Your task to perform on an android device: search for starred emails in the gmail app Image 0: 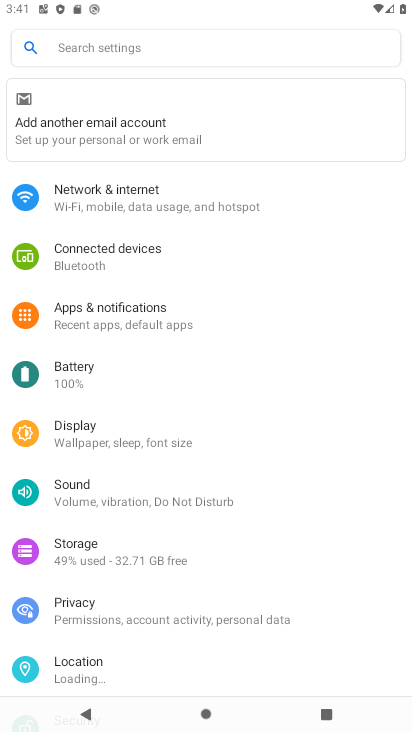
Step 0: press home button
Your task to perform on an android device: search for starred emails in the gmail app Image 1: 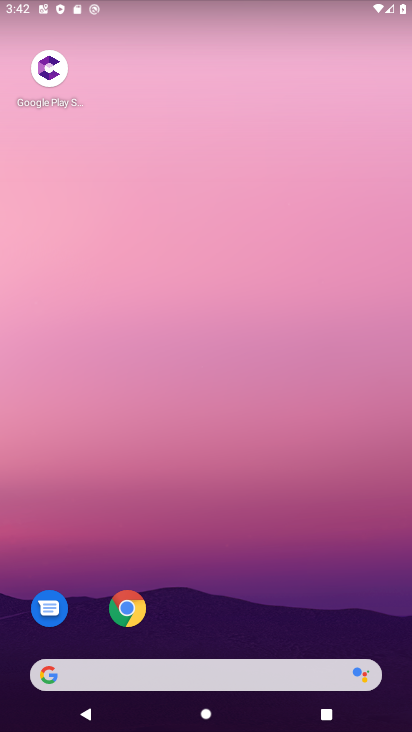
Step 1: drag from (266, 608) to (188, 248)
Your task to perform on an android device: search for starred emails in the gmail app Image 2: 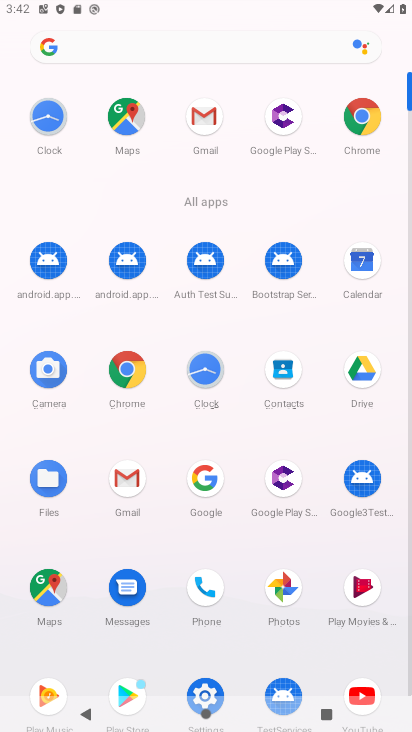
Step 2: click (188, 113)
Your task to perform on an android device: search for starred emails in the gmail app Image 3: 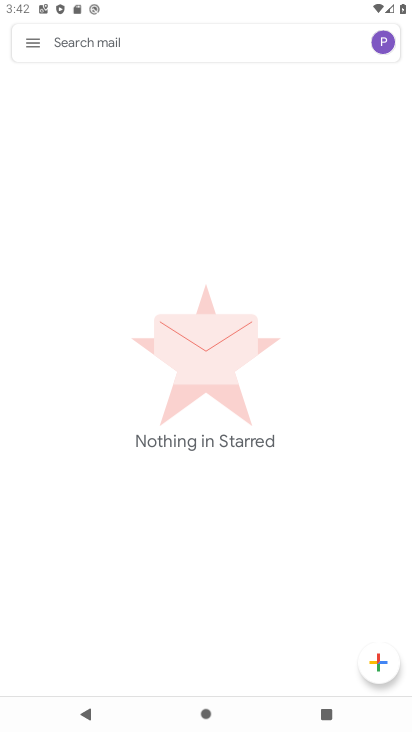
Step 3: click (36, 48)
Your task to perform on an android device: search for starred emails in the gmail app Image 4: 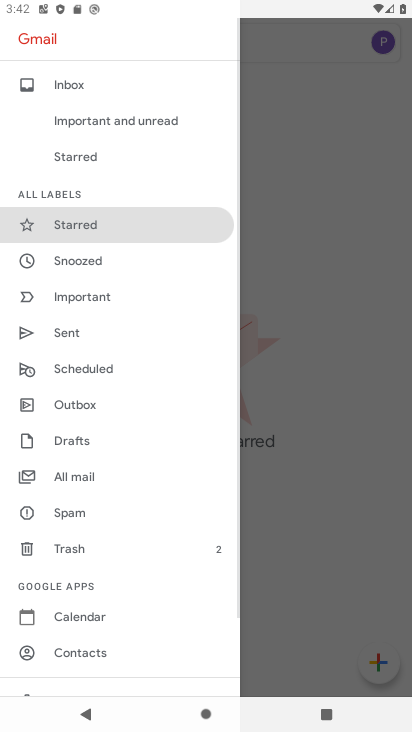
Step 4: click (91, 220)
Your task to perform on an android device: search for starred emails in the gmail app Image 5: 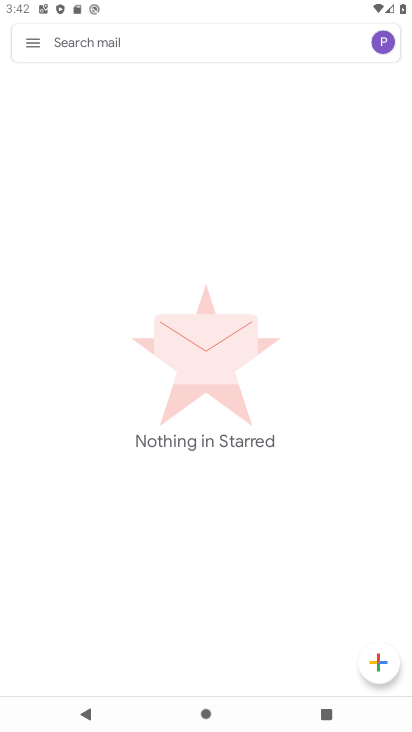
Step 5: task complete